Your task to perform on an android device: change the clock style Image 0: 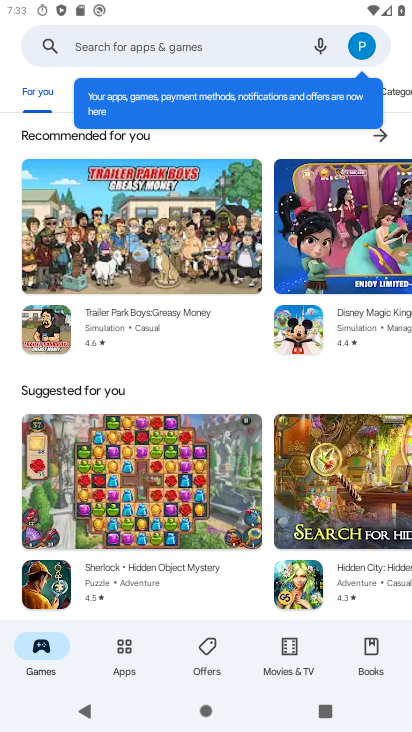
Step 0: press home button
Your task to perform on an android device: change the clock style Image 1: 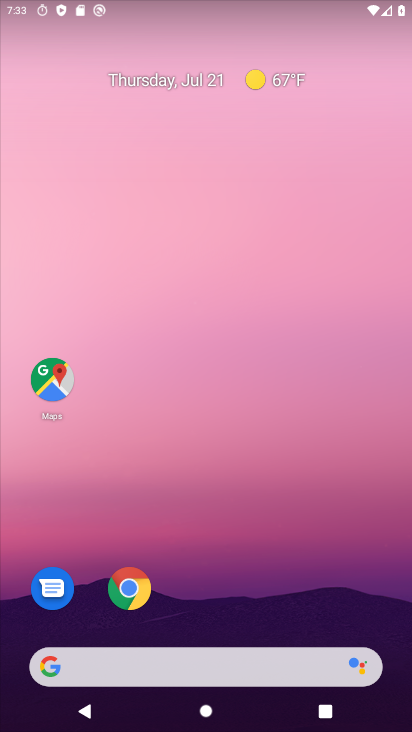
Step 1: drag from (183, 654) to (221, 258)
Your task to perform on an android device: change the clock style Image 2: 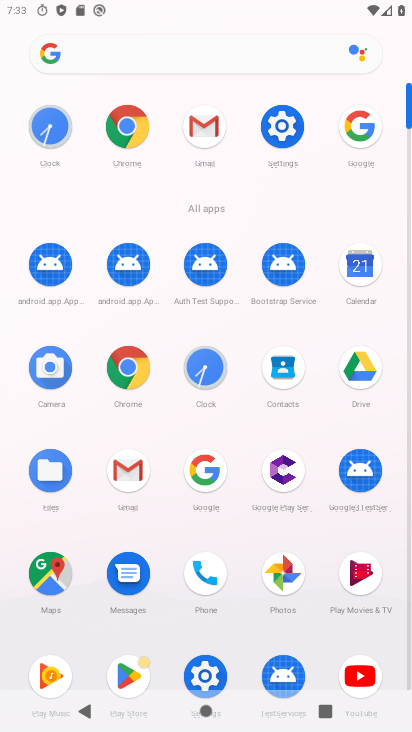
Step 2: click (196, 380)
Your task to perform on an android device: change the clock style Image 3: 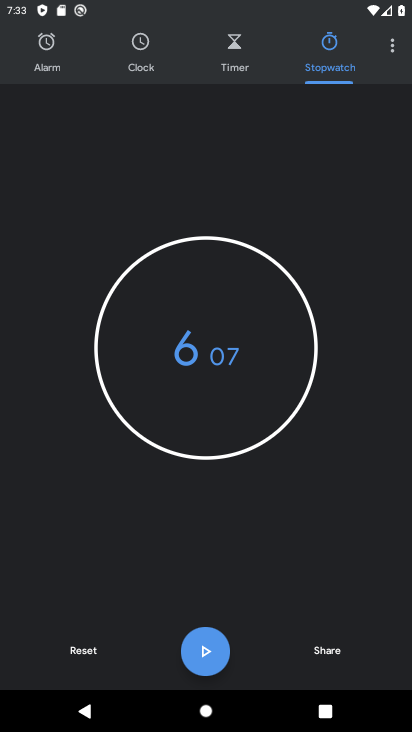
Step 3: click (389, 47)
Your task to perform on an android device: change the clock style Image 4: 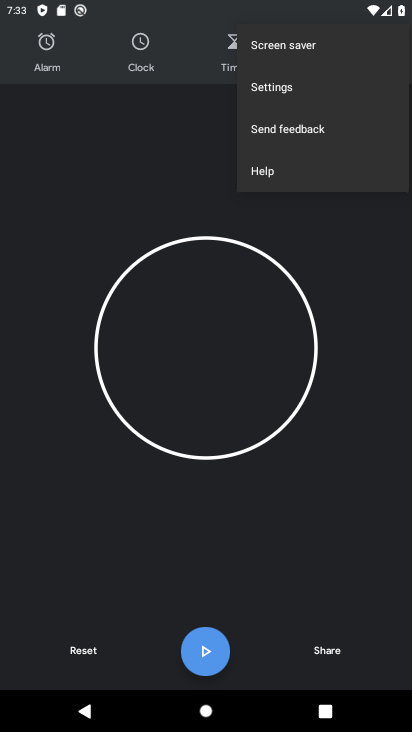
Step 4: click (332, 87)
Your task to perform on an android device: change the clock style Image 5: 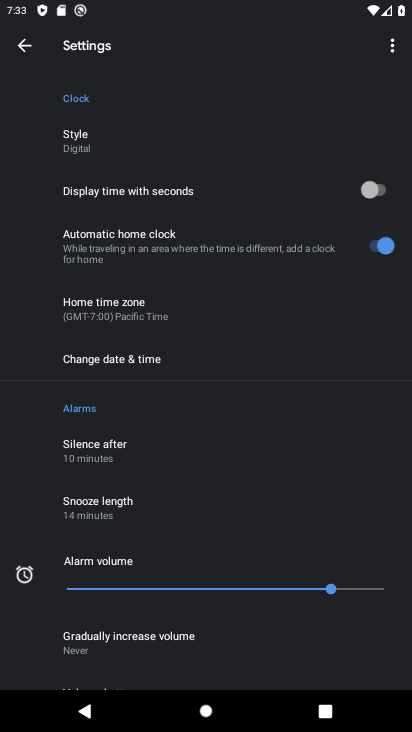
Step 5: click (85, 145)
Your task to perform on an android device: change the clock style Image 6: 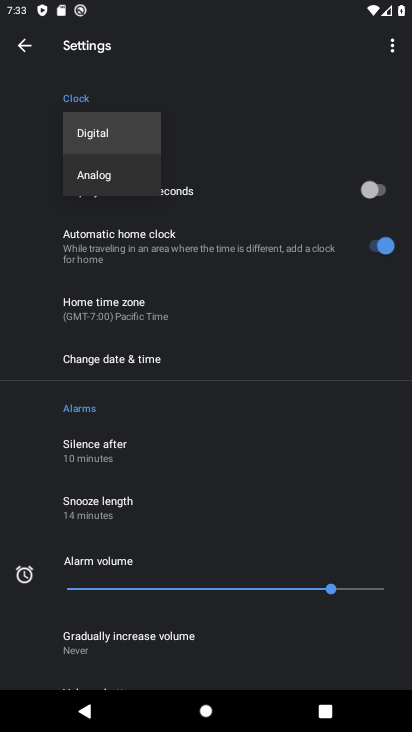
Step 6: click (103, 177)
Your task to perform on an android device: change the clock style Image 7: 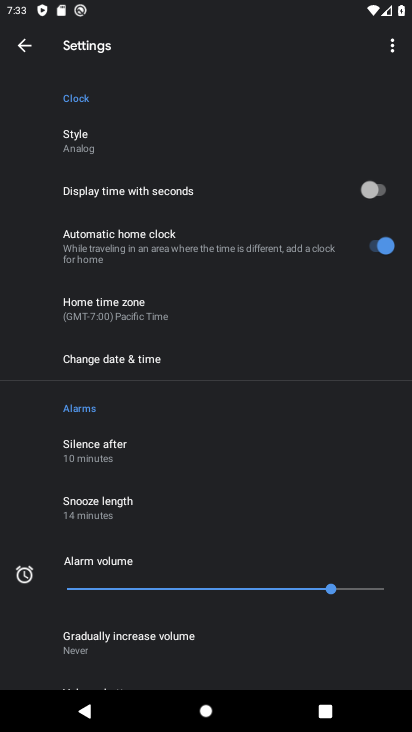
Step 7: task complete